Your task to perform on an android device: empty trash in google photos Image 0: 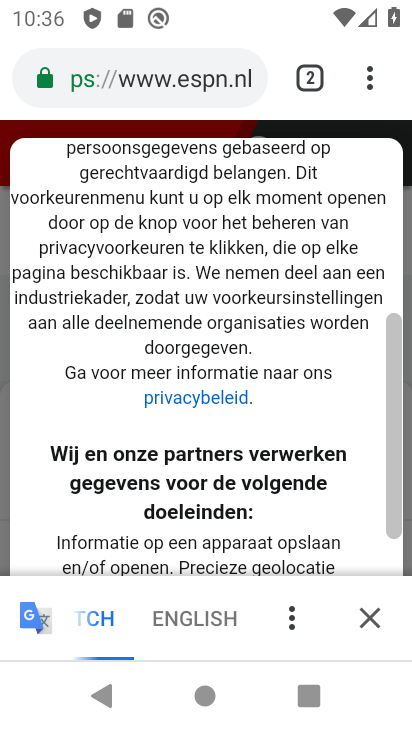
Step 0: press home button
Your task to perform on an android device: empty trash in google photos Image 1: 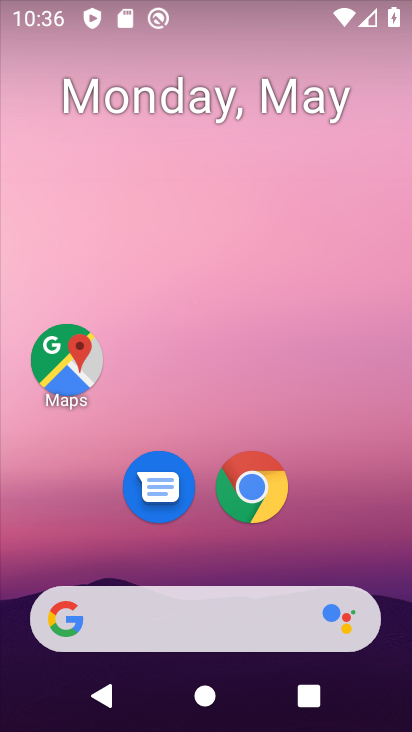
Step 1: drag from (390, 585) to (408, 246)
Your task to perform on an android device: empty trash in google photos Image 2: 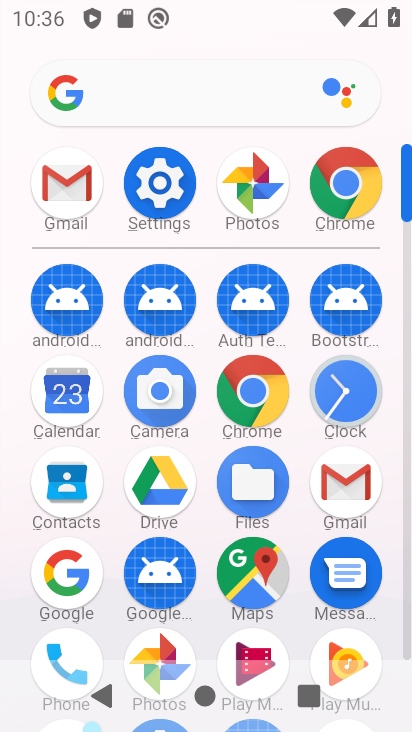
Step 2: drag from (390, 587) to (388, 491)
Your task to perform on an android device: empty trash in google photos Image 3: 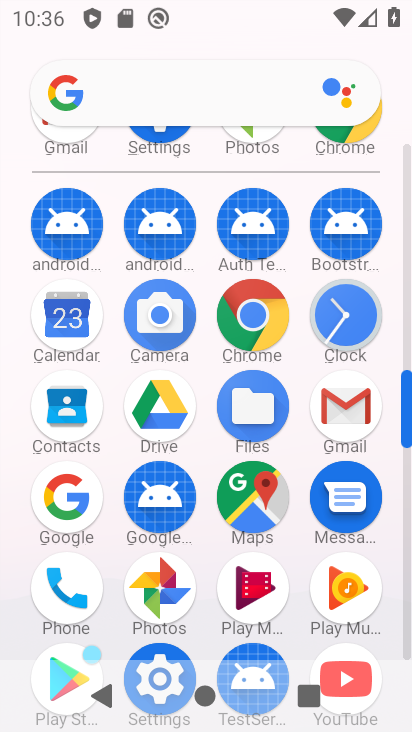
Step 3: drag from (384, 598) to (393, 414)
Your task to perform on an android device: empty trash in google photos Image 4: 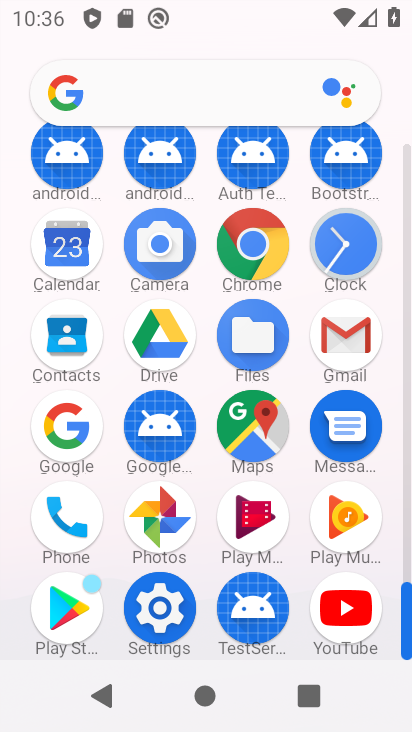
Step 4: click (160, 531)
Your task to perform on an android device: empty trash in google photos Image 5: 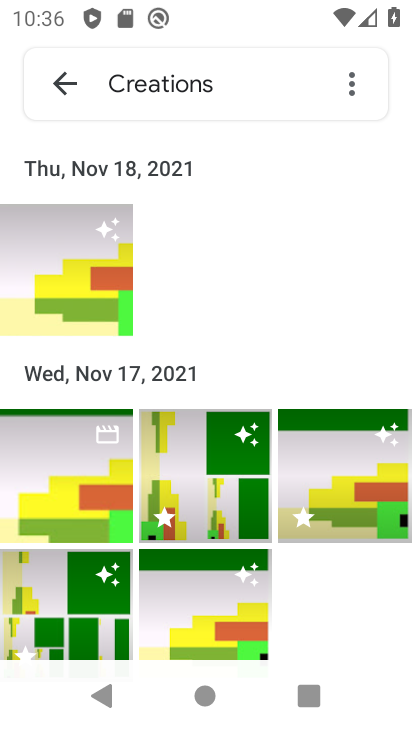
Step 5: click (65, 95)
Your task to perform on an android device: empty trash in google photos Image 6: 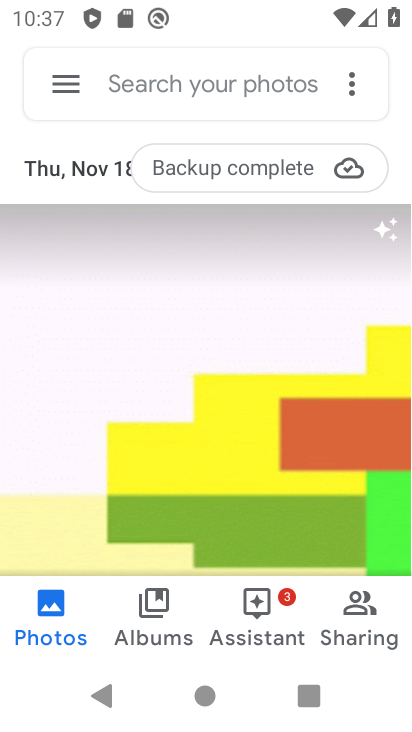
Step 6: click (57, 82)
Your task to perform on an android device: empty trash in google photos Image 7: 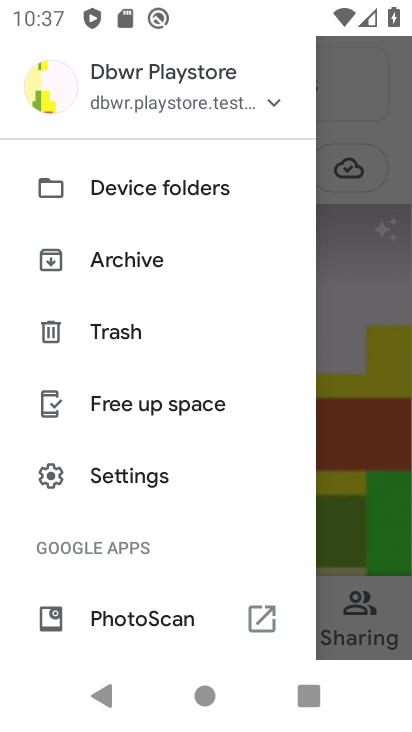
Step 7: click (159, 344)
Your task to perform on an android device: empty trash in google photos Image 8: 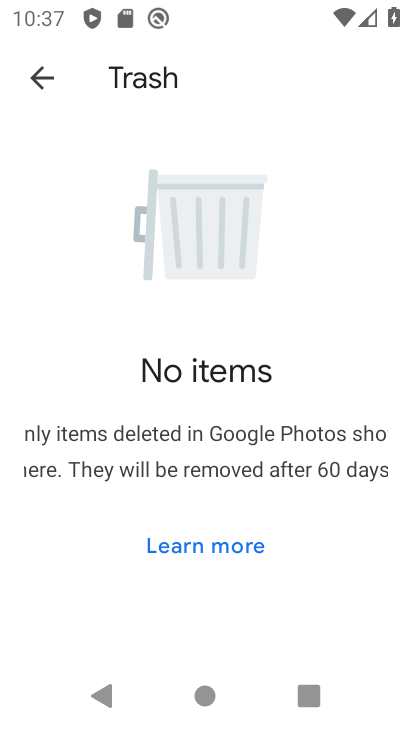
Step 8: task complete